Your task to perform on an android device: Go to settings Image 0: 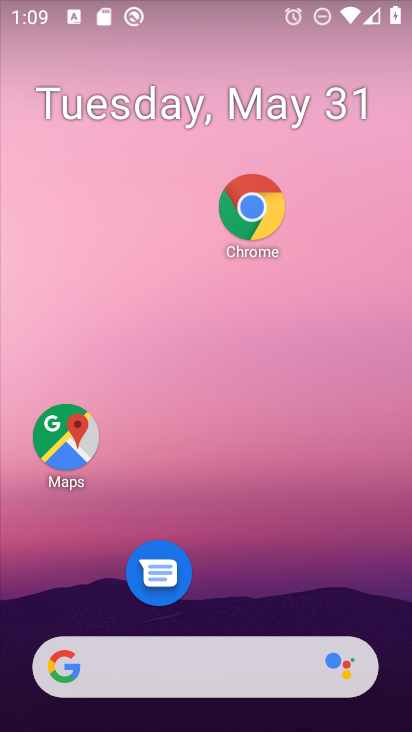
Step 0: drag from (251, 633) to (220, 145)
Your task to perform on an android device: Go to settings Image 1: 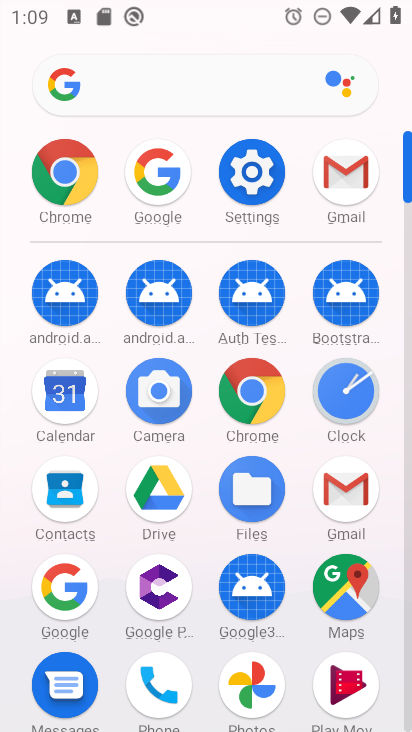
Step 1: click (249, 174)
Your task to perform on an android device: Go to settings Image 2: 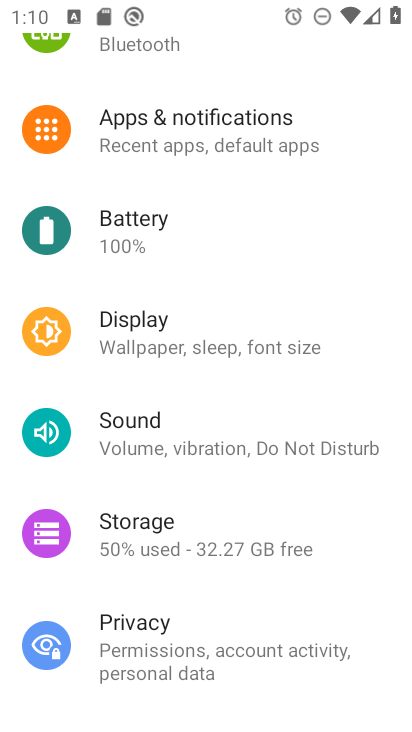
Step 2: task complete